Your task to perform on an android device: What's on my calendar tomorrow? Image 0: 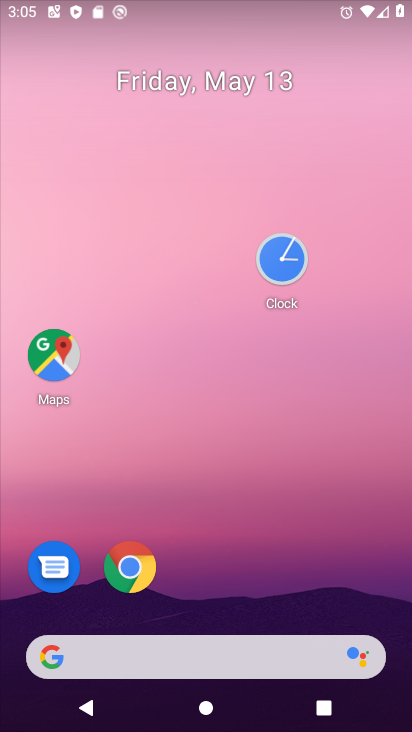
Step 0: drag from (268, 612) to (213, 174)
Your task to perform on an android device: What's on my calendar tomorrow? Image 1: 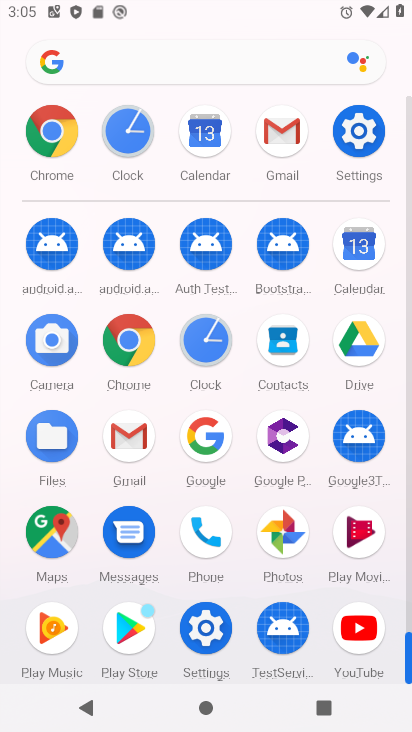
Step 1: click (211, 146)
Your task to perform on an android device: What's on my calendar tomorrow? Image 2: 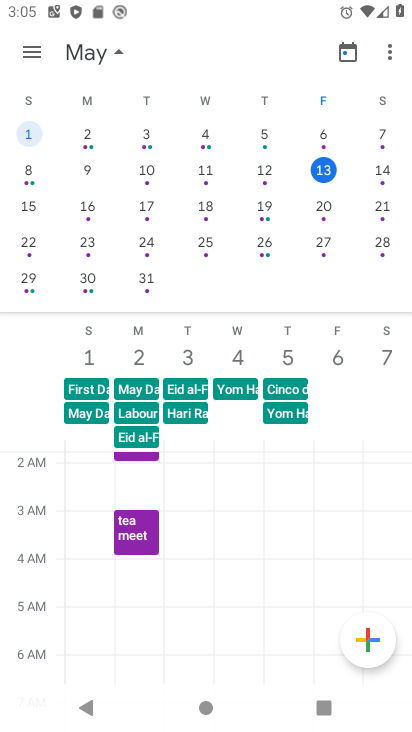
Step 2: task complete